Your task to perform on an android device: delete the emails in spam in the gmail app Image 0: 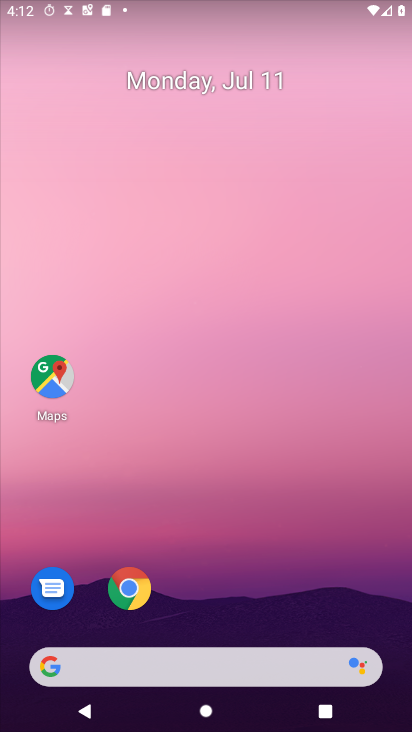
Step 0: drag from (267, 571) to (132, 0)
Your task to perform on an android device: delete the emails in spam in the gmail app Image 1: 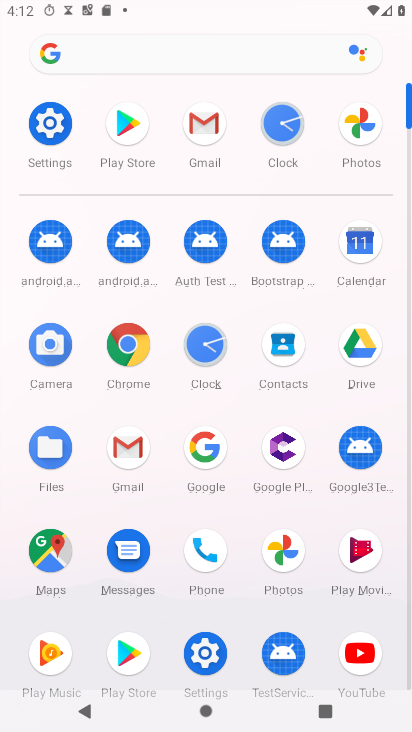
Step 1: click (210, 125)
Your task to perform on an android device: delete the emails in spam in the gmail app Image 2: 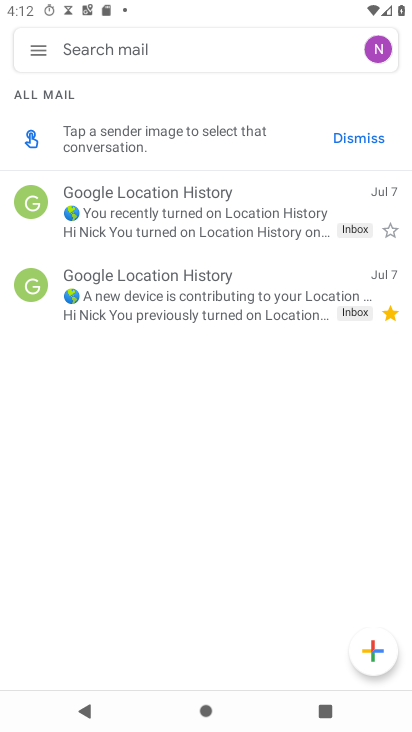
Step 2: click (41, 43)
Your task to perform on an android device: delete the emails in spam in the gmail app Image 3: 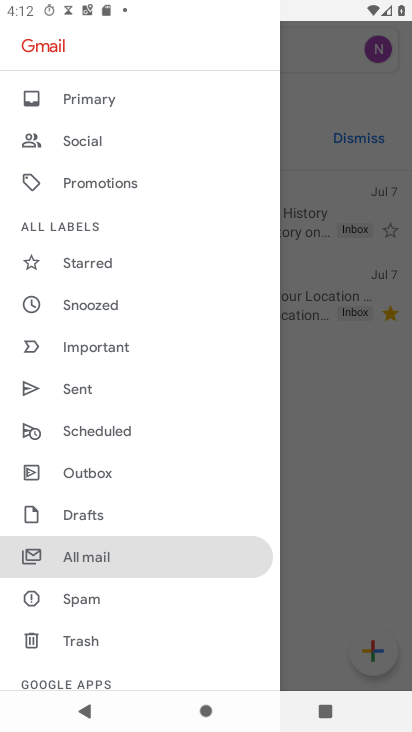
Step 3: click (165, 591)
Your task to perform on an android device: delete the emails in spam in the gmail app Image 4: 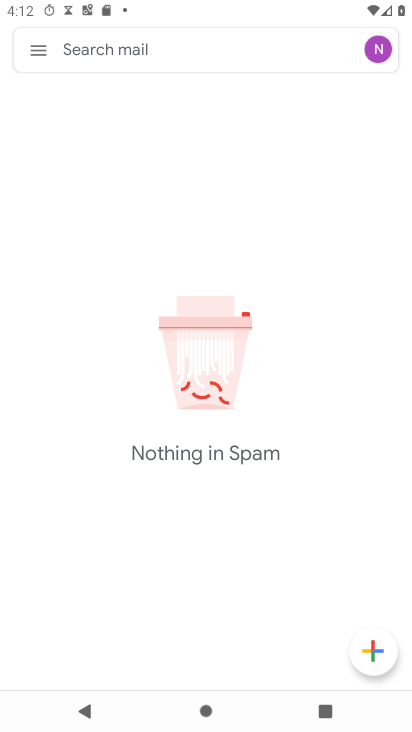
Step 4: task complete